Your task to perform on an android device: open app "Duolingo: language lessons" Image 0: 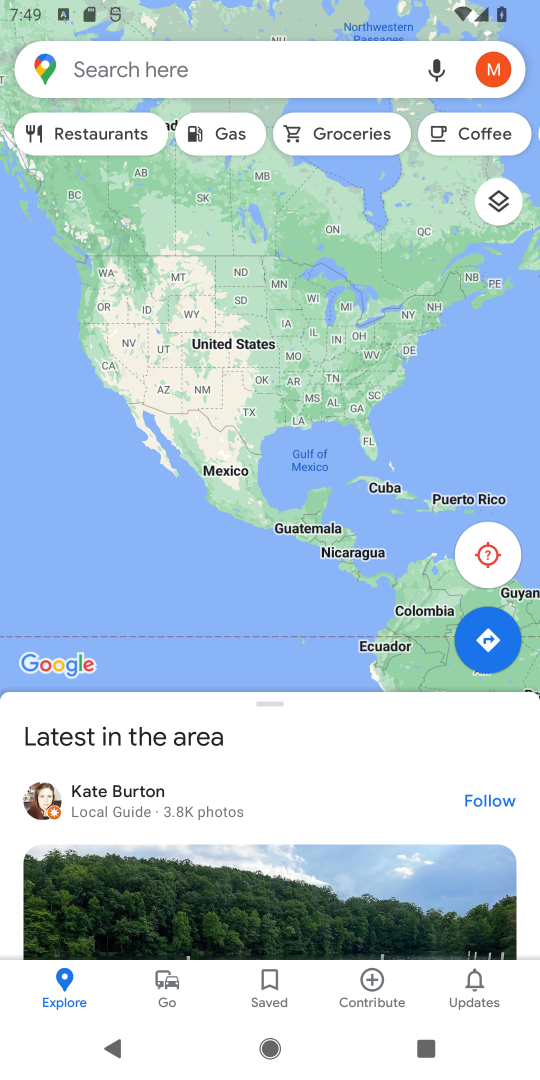
Step 0: press home button
Your task to perform on an android device: open app "Duolingo: language lessons" Image 1: 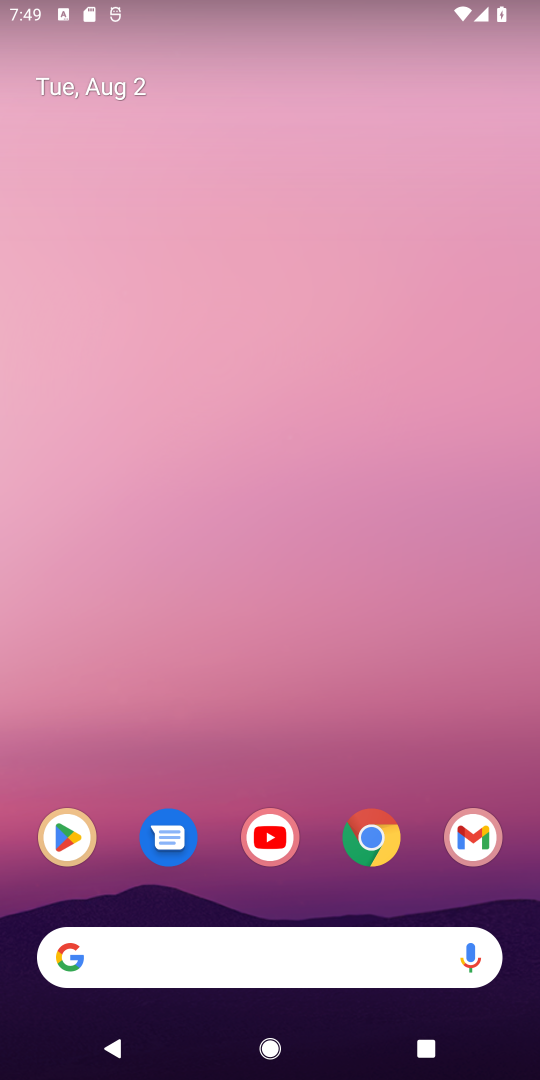
Step 1: click (73, 833)
Your task to perform on an android device: open app "Duolingo: language lessons" Image 2: 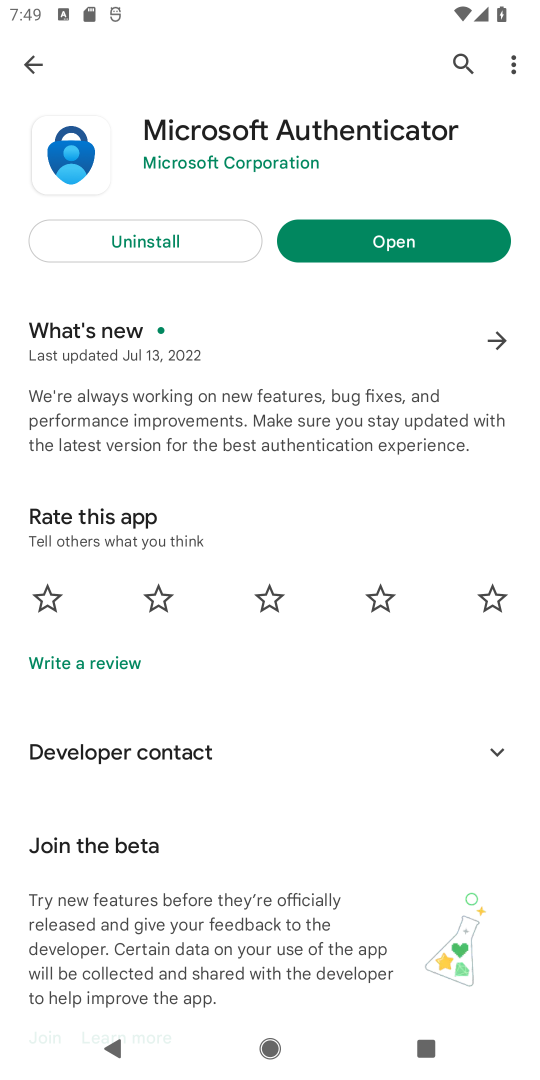
Step 2: click (464, 71)
Your task to perform on an android device: open app "Duolingo: language lessons" Image 3: 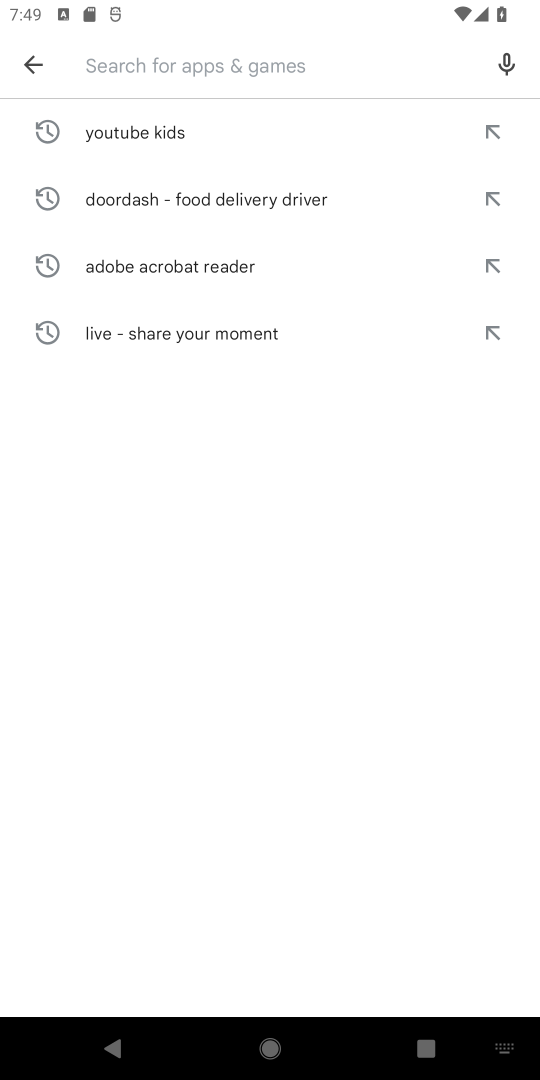
Step 3: type "Duolingo: language lessons"
Your task to perform on an android device: open app "Duolingo: language lessons" Image 4: 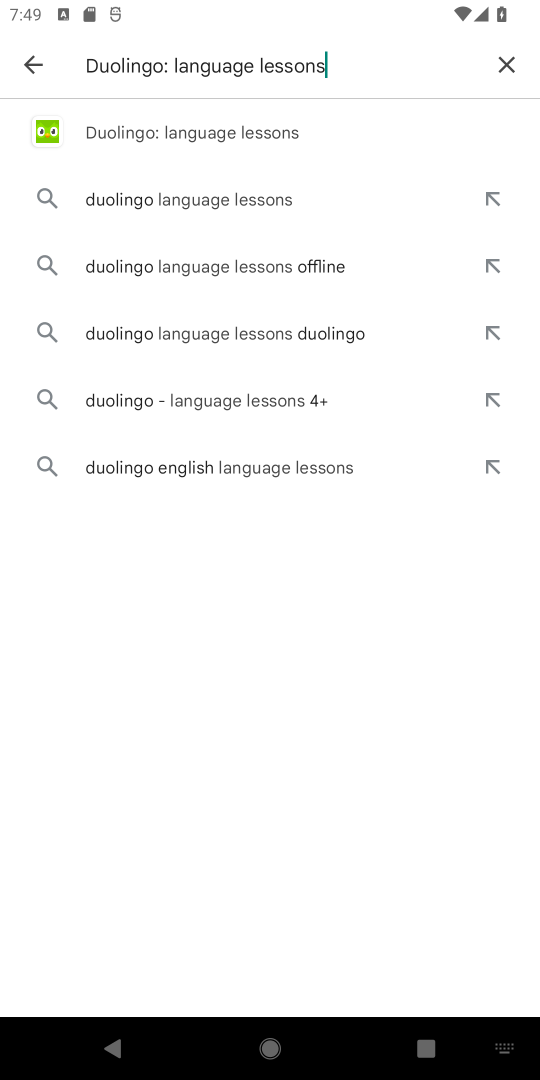
Step 4: click (194, 142)
Your task to perform on an android device: open app "Duolingo: language lessons" Image 5: 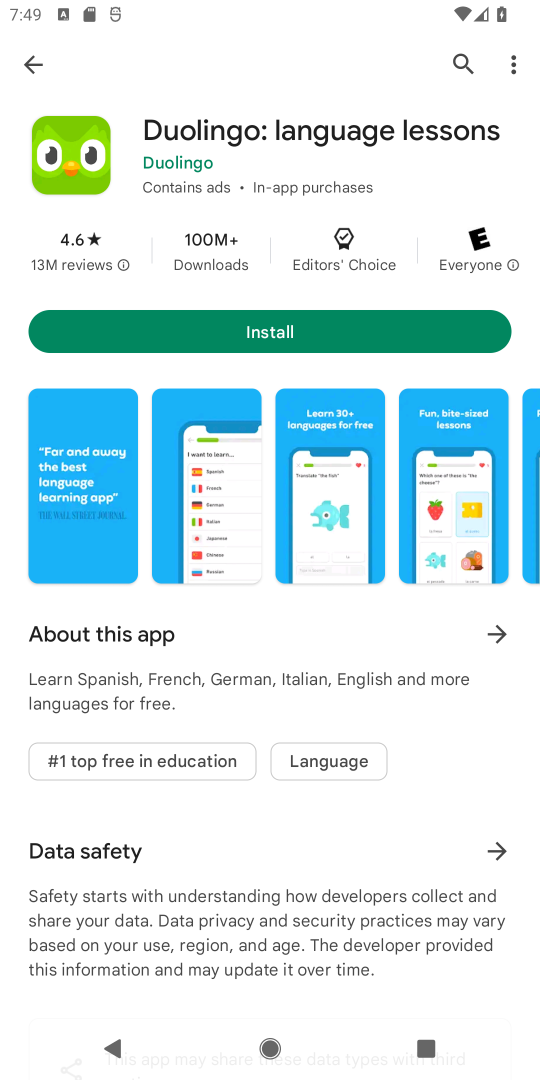
Step 5: task complete